Your task to perform on an android device: Add macbook pro to the cart on costco.com Image 0: 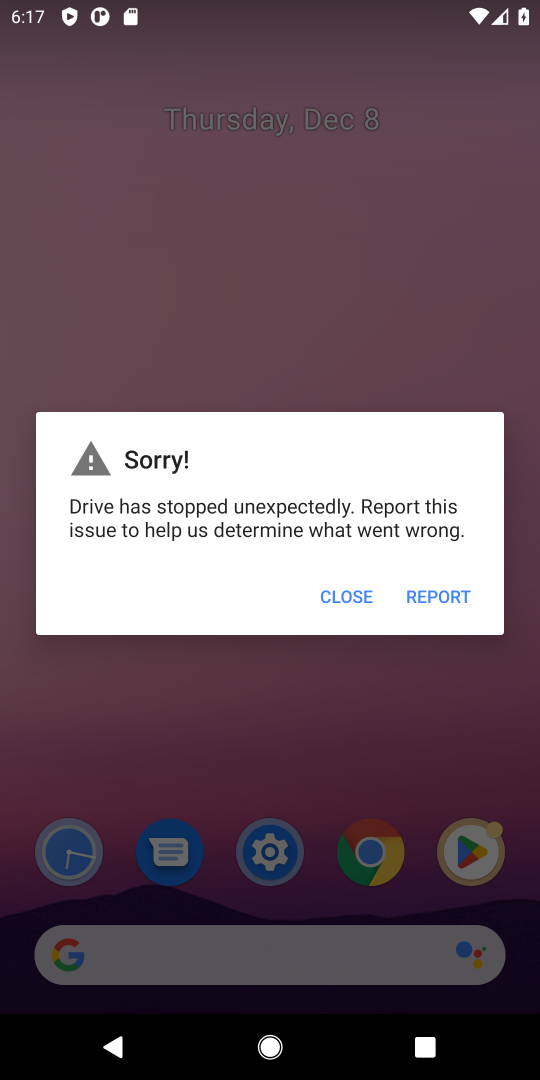
Step 0: click (331, 604)
Your task to perform on an android device: Add macbook pro to the cart on costco.com Image 1: 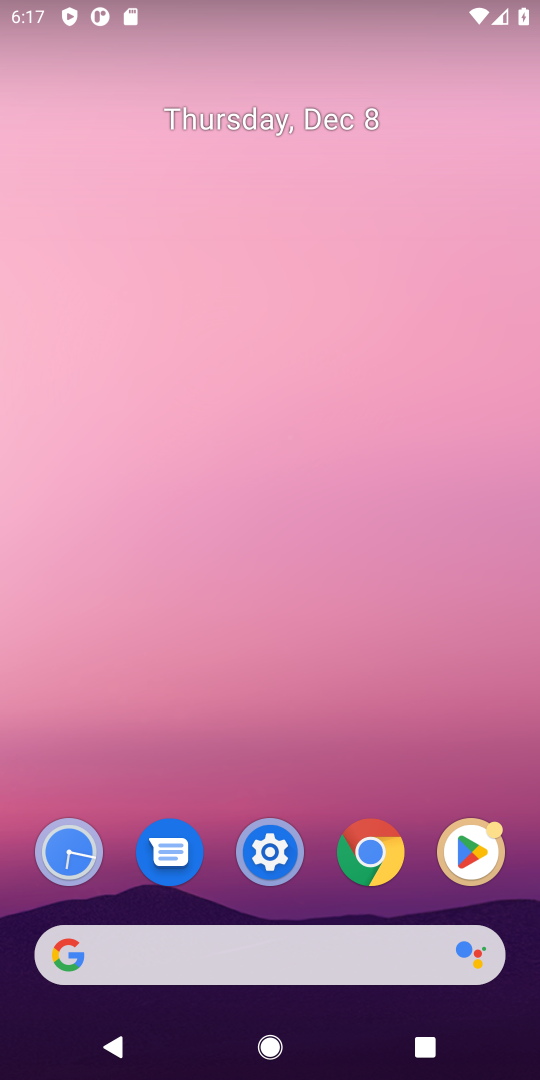
Step 1: click (303, 945)
Your task to perform on an android device: Add macbook pro to the cart on costco.com Image 2: 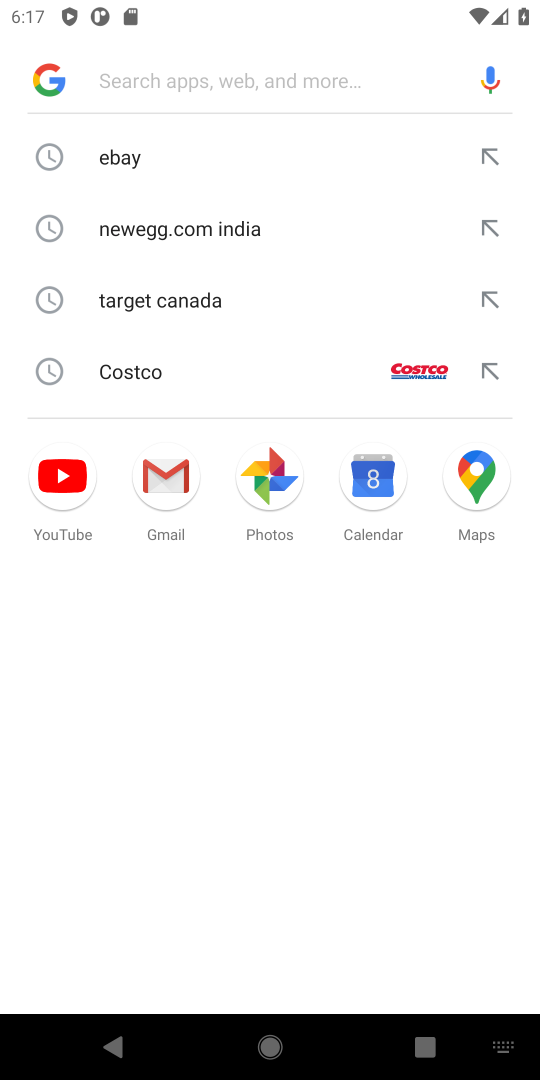
Step 2: type "costco.com"
Your task to perform on an android device: Add macbook pro to the cart on costco.com Image 3: 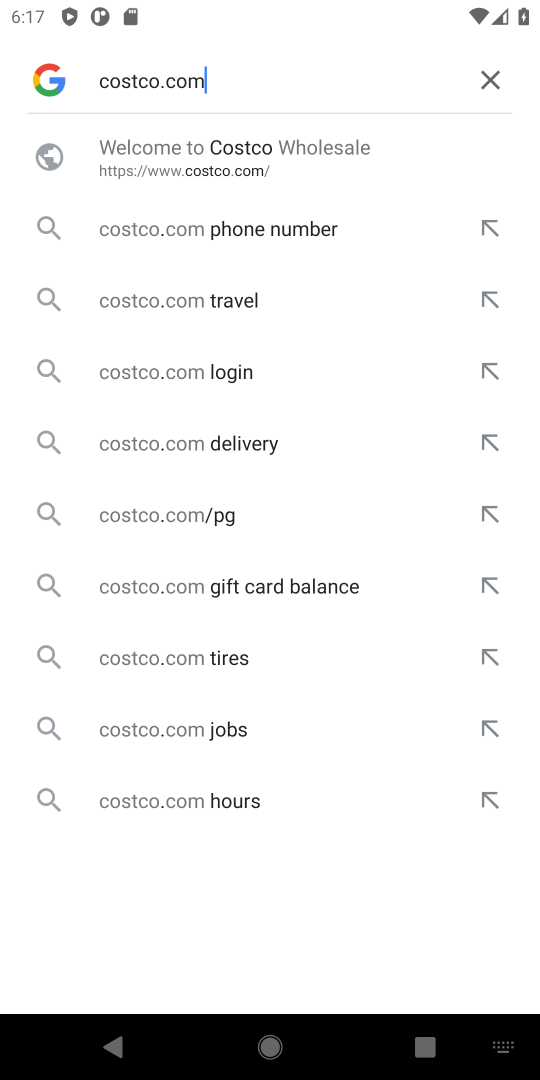
Step 3: click (204, 174)
Your task to perform on an android device: Add macbook pro to the cart on costco.com Image 4: 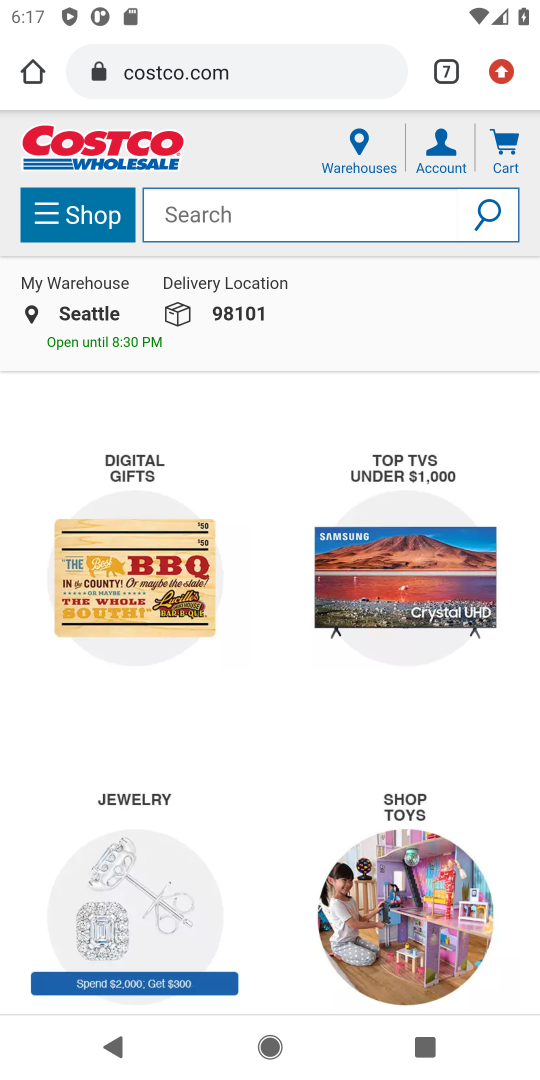
Step 4: click (166, 211)
Your task to perform on an android device: Add macbook pro to the cart on costco.com Image 5: 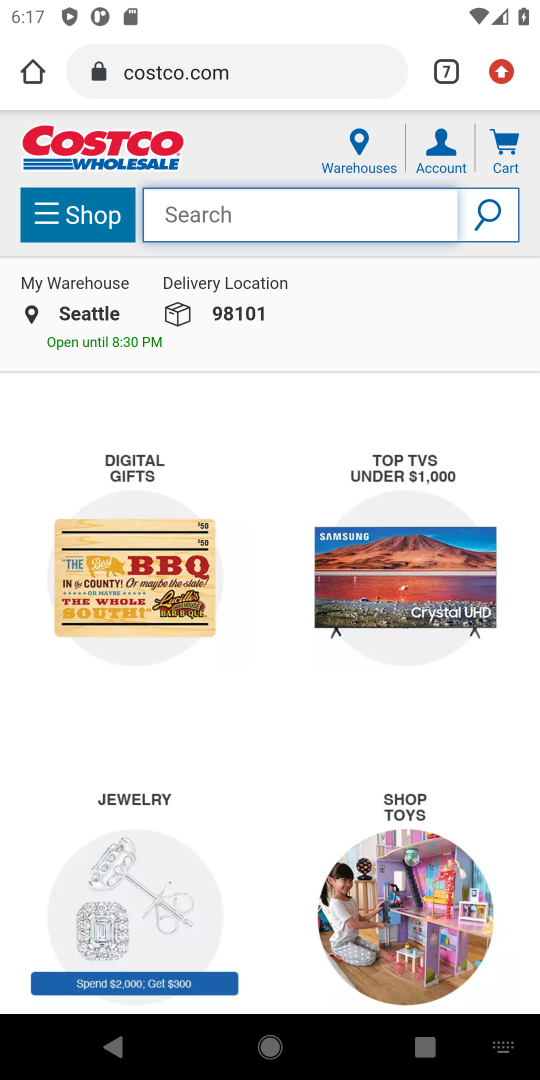
Step 5: type "macbook pro"
Your task to perform on an android device: Add macbook pro to the cart on costco.com Image 6: 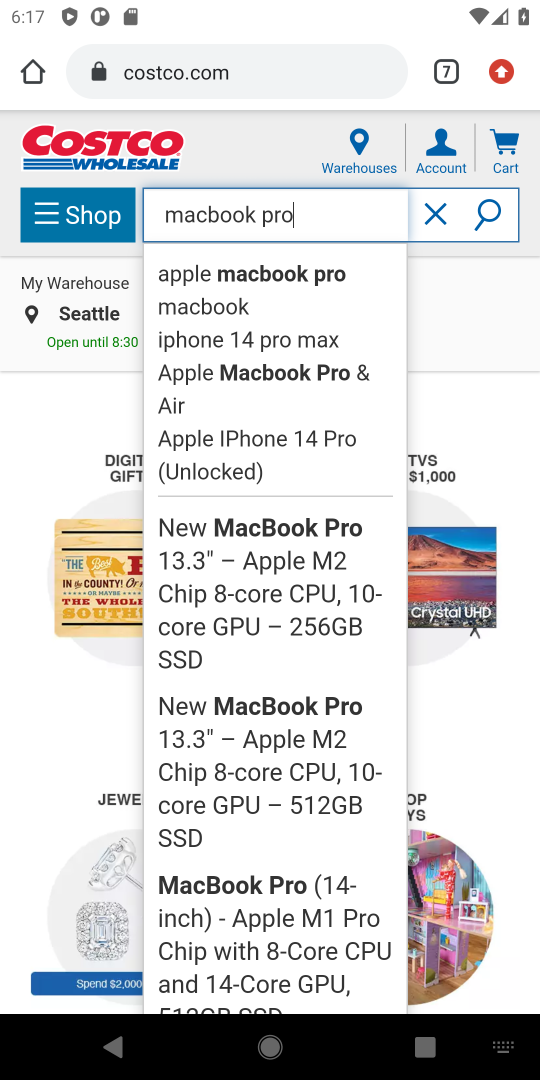
Step 6: click (305, 282)
Your task to perform on an android device: Add macbook pro to the cart on costco.com Image 7: 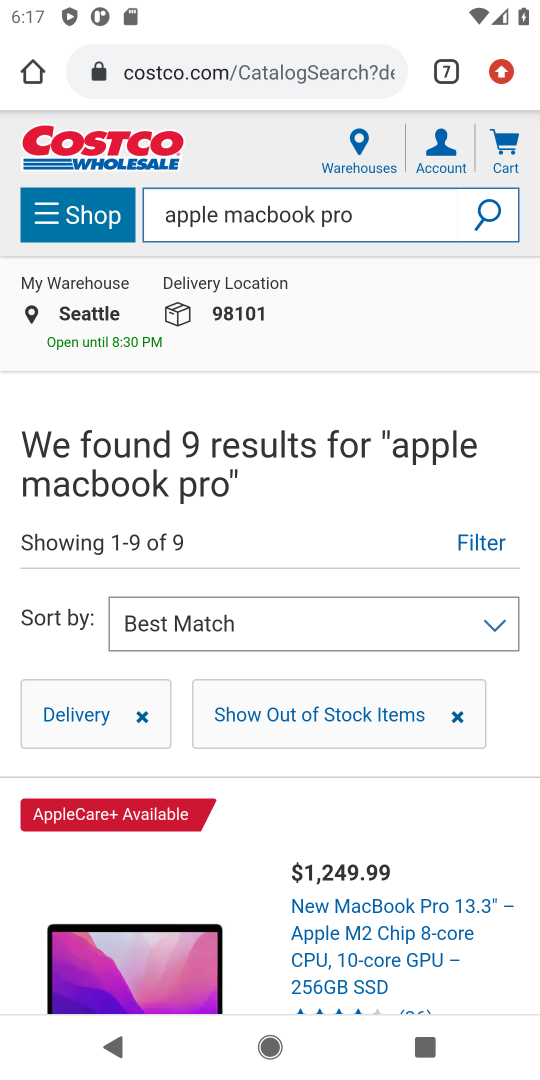
Step 7: click (321, 914)
Your task to perform on an android device: Add macbook pro to the cart on costco.com Image 8: 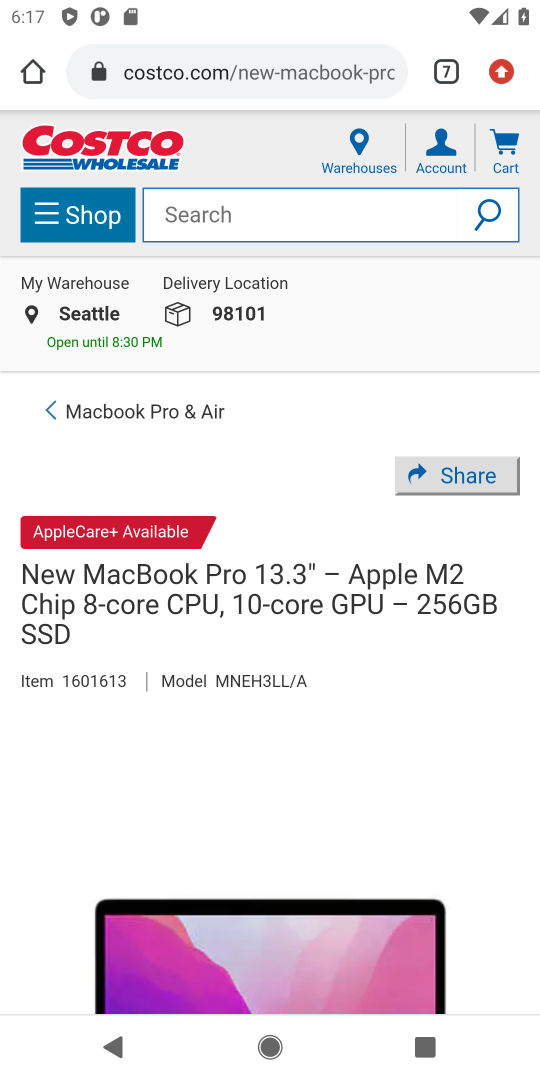
Step 8: drag from (261, 790) to (230, 425)
Your task to perform on an android device: Add macbook pro to the cart on costco.com Image 9: 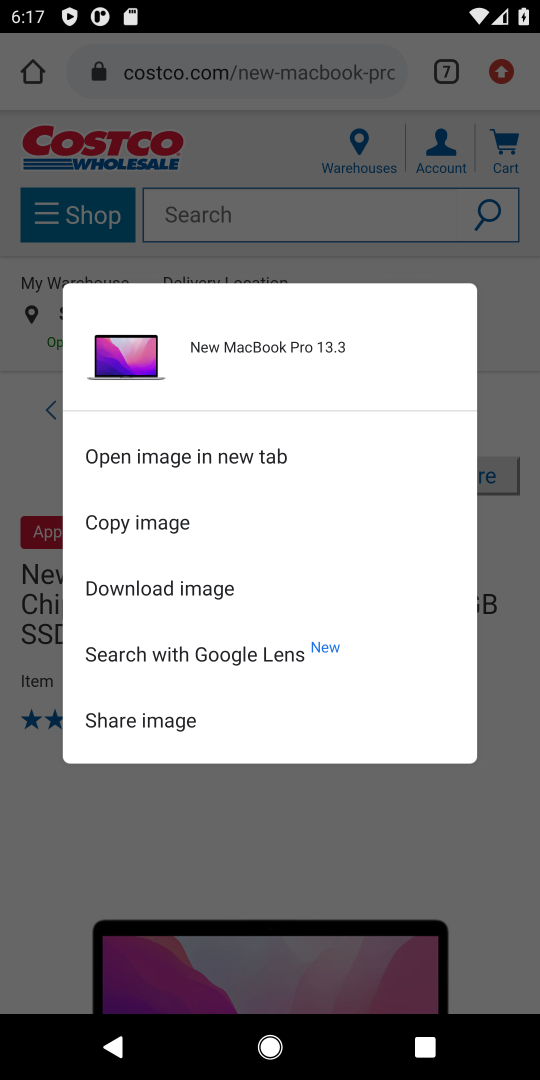
Step 9: click (508, 897)
Your task to perform on an android device: Add macbook pro to the cart on costco.com Image 10: 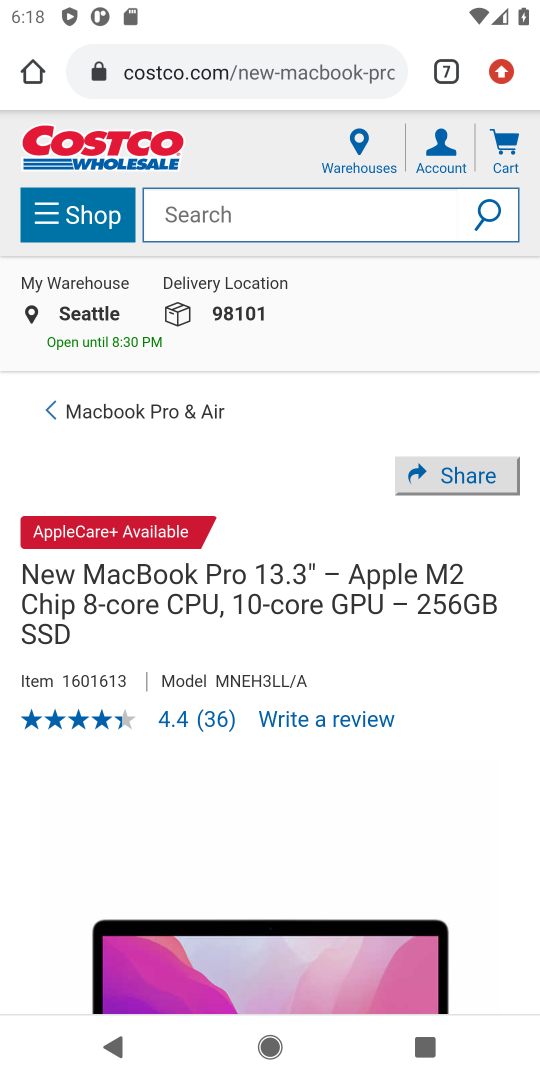
Step 10: drag from (478, 934) to (349, 509)
Your task to perform on an android device: Add macbook pro to the cart on costco.com Image 11: 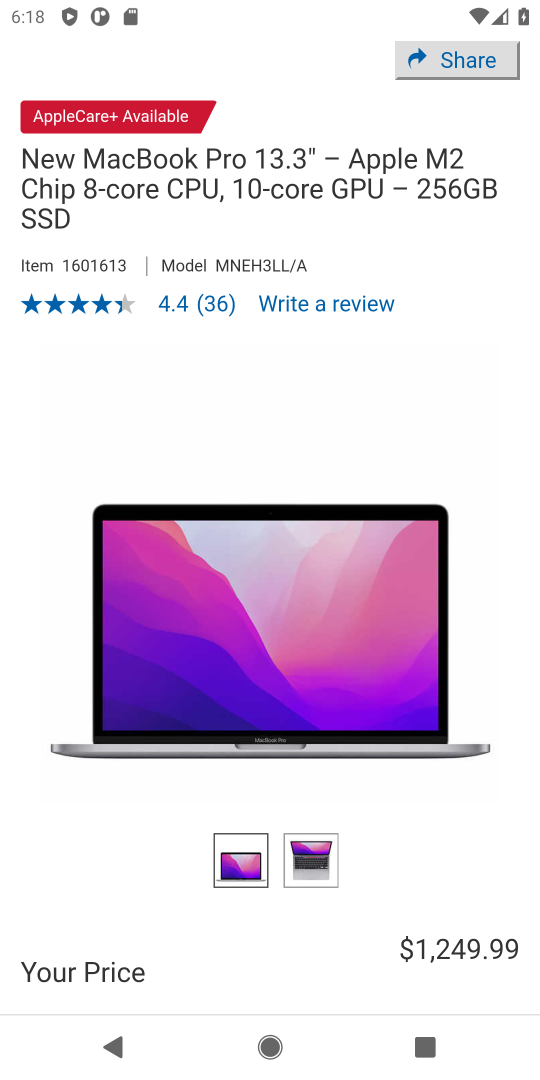
Step 11: drag from (417, 838) to (270, 133)
Your task to perform on an android device: Add macbook pro to the cart on costco.com Image 12: 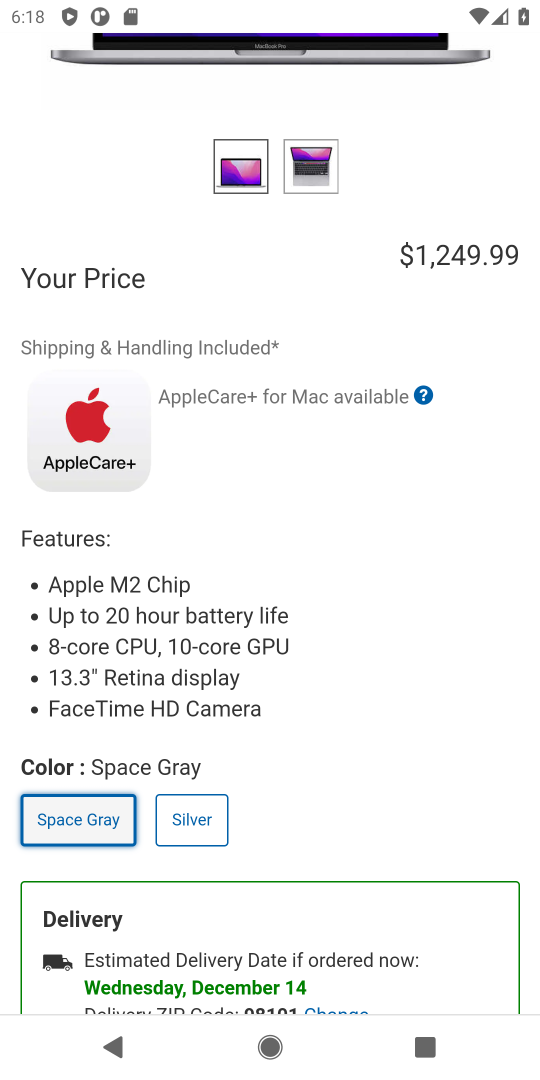
Step 12: click (97, 832)
Your task to perform on an android device: Add macbook pro to the cart on costco.com Image 13: 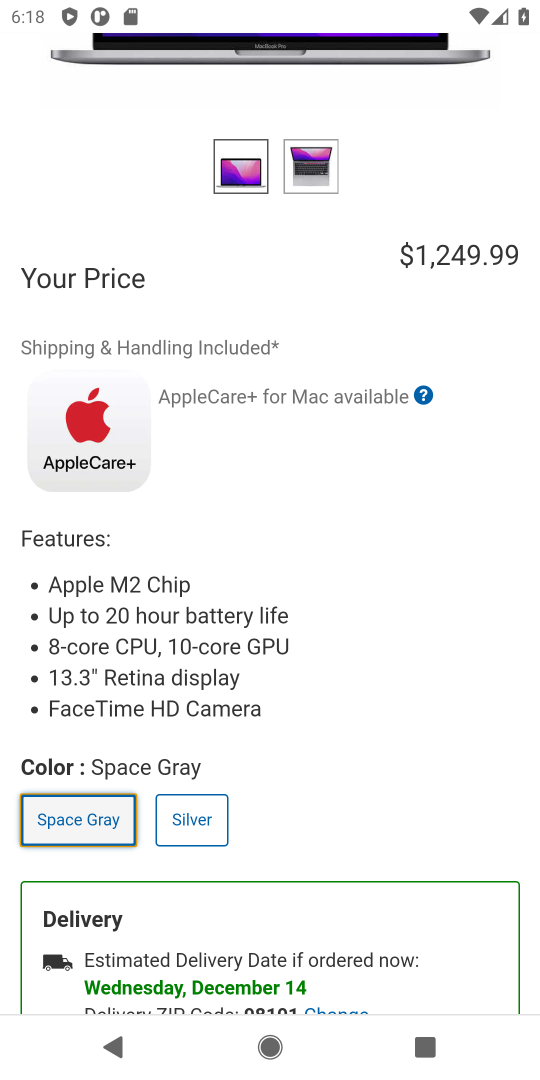
Step 13: drag from (492, 673) to (420, 161)
Your task to perform on an android device: Add macbook pro to the cart on costco.com Image 14: 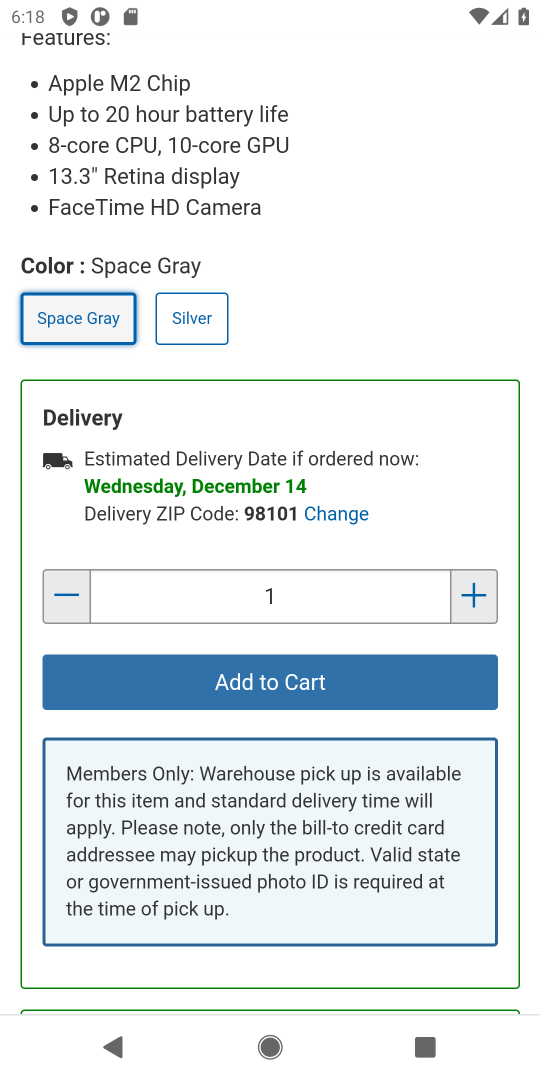
Step 14: click (280, 669)
Your task to perform on an android device: Add macbook pro to the cart on costco.com Image 15: 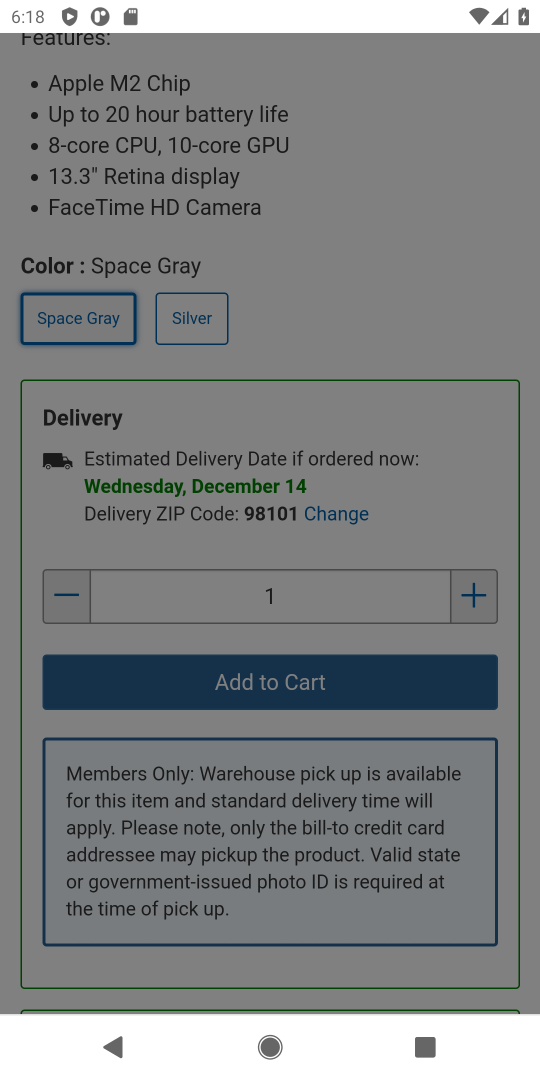
Step 15: task complete